Your task to perform on an android device: set the stopwatch Image 0: 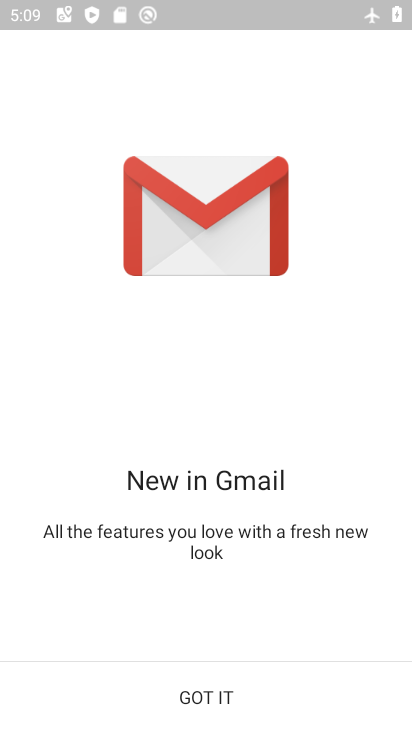
Step 0: press home button
Your task to perform on an android device: set the stopwatch Image 1: 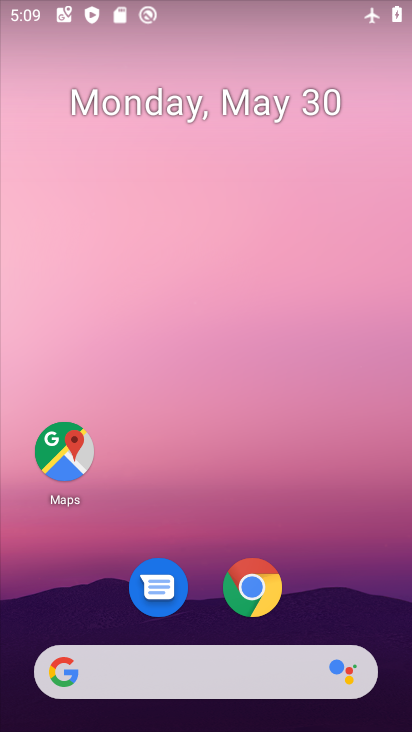
Step 1: drag from (339, 586) to (268, 116)
Your task to perform on an android device: set the stopwatch Image 2: 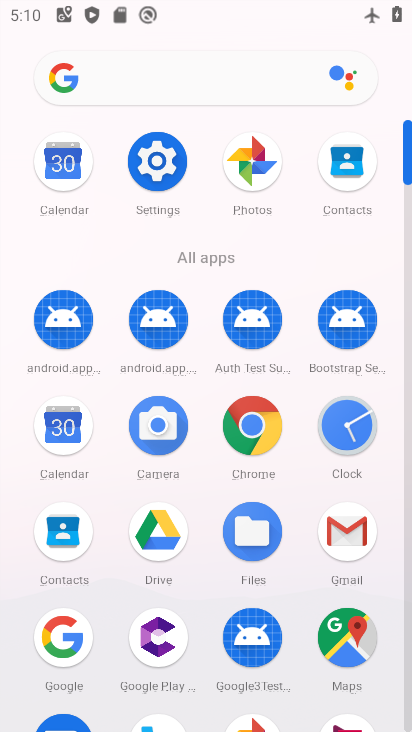
Step 2: click (347, 423)
Your task to perform on an android device: set the stopwatch Image 3: 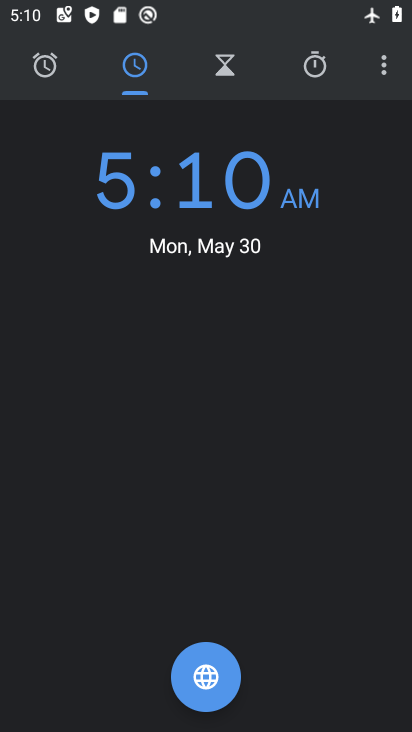
Step 3: click (315, 59)
Your task to perform on an android device: set the stopwatch Image 4: 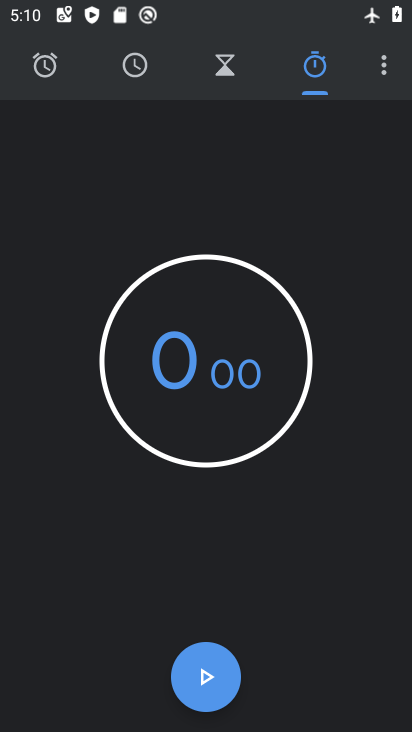
Step 4: click (203, 676)
Your task to perform on an android device: set the stopwatch Image 5: 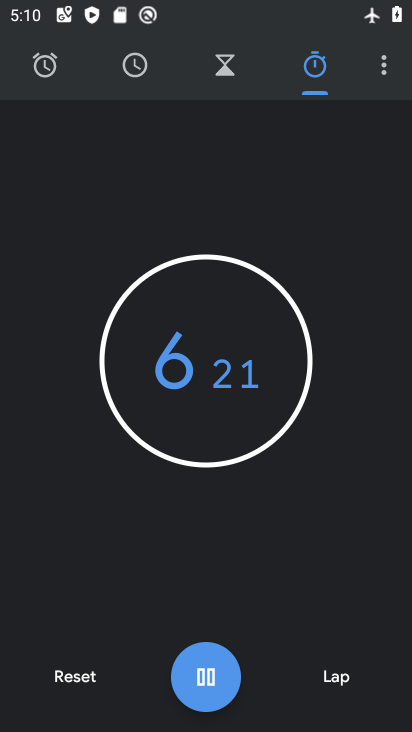
Step 5: click (208, 681)
Your task to perform on an android device: set the stopwatch Image 6: 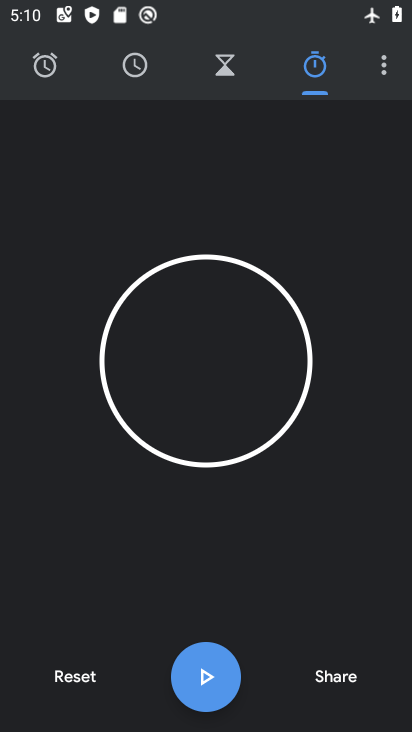
Step 6: task complete